Your task to perform on an android device: toggle pop-ups in chrome Image 0: 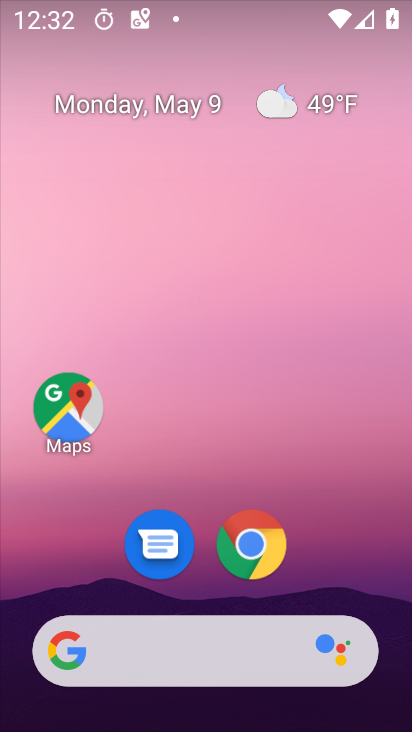
Step 0: drag from (325, 571) to (266, 13)
Your task to perform on an android device: toggle pop-ups in chrome Image 1: 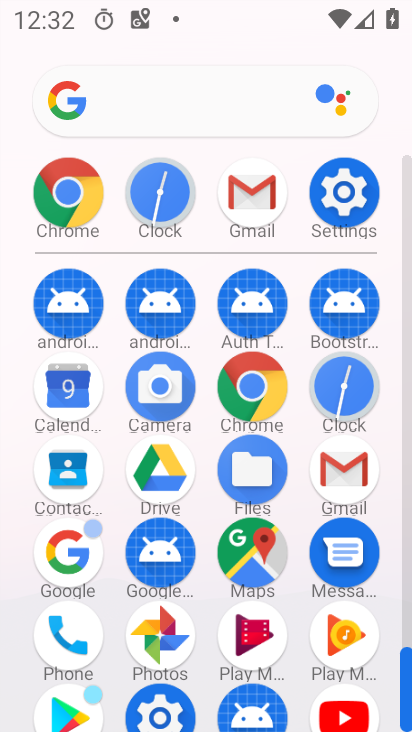
Step 1: click (254, 408)
Your task to perform on an android device: toggle pop-ups in chrome Image 2: 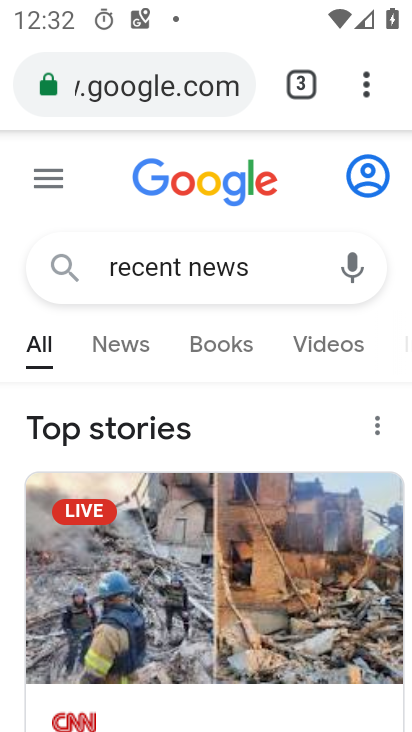
Step 2: drag from (354, 77) to (124, 604)
Your task to perform on an android device: toggle pop-ups in chrome Image 3: 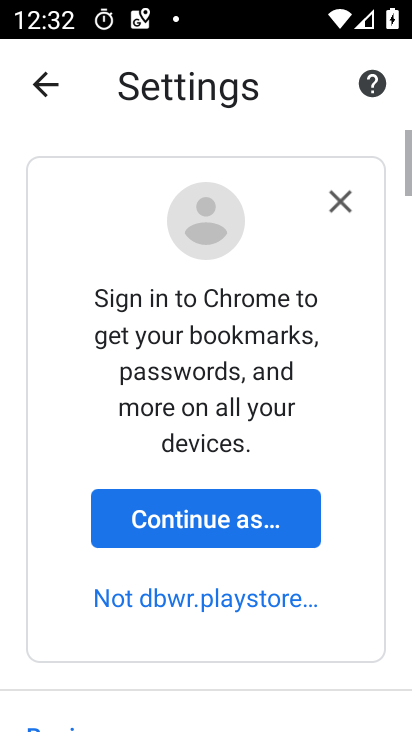
Step 3: drag from (200, 629) to (257, 287)
Your task to perform on an android device: toggle pop-ups in chrome Image 4: 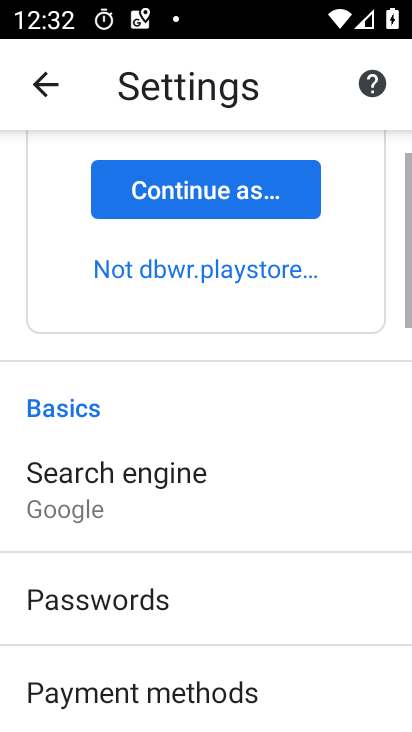
Step 4: drag from (274, 638) to (326, 73)
Your task to perform on an android device: toggle pop-ups in chrome Image 5: 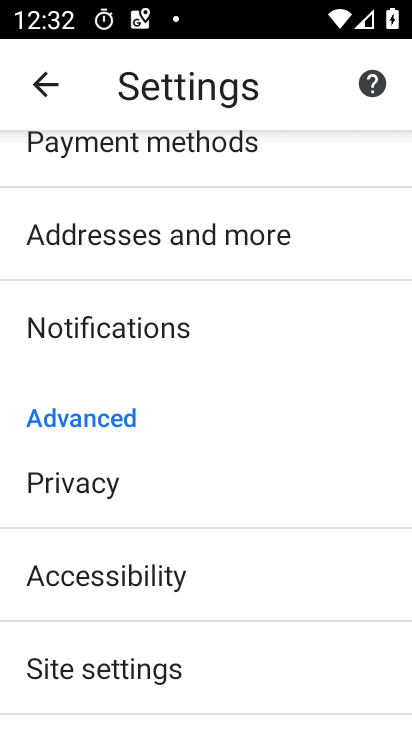
Step 5: click (217, 647)
Your task to perform on an android device: toggle pop-ups in chrome Image 6: 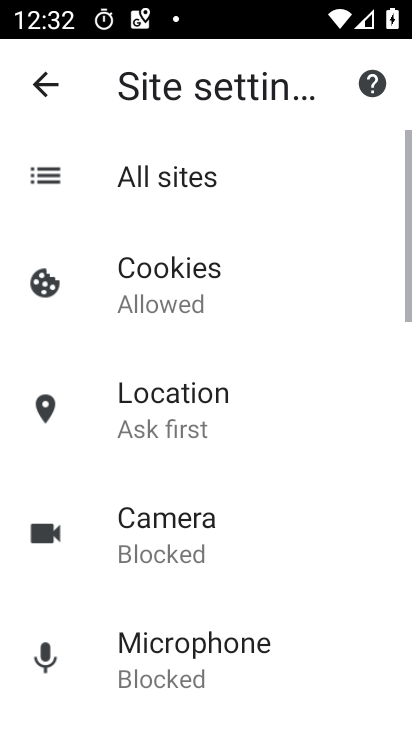
Step 6: drag from (223, 680) to (236, 118)
Your task to perform on an android device: toggle pop-ups in chrome Image 7: 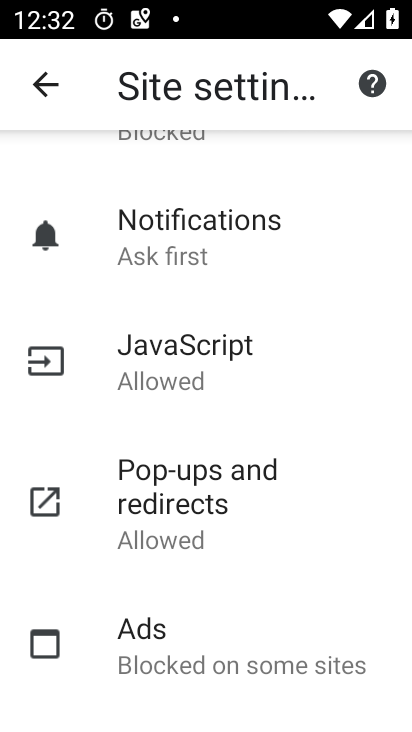
Step 7: click (242, 461)
Your task to perform on an android device: toggle pop-ups in chrome Image 8: 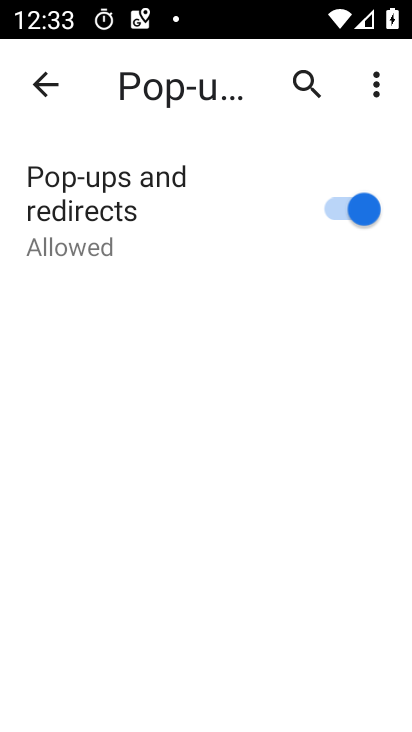
Step 8: click (335, 209)
Your task to perform on an android device: toggle pop-ups in chrome Image 9: 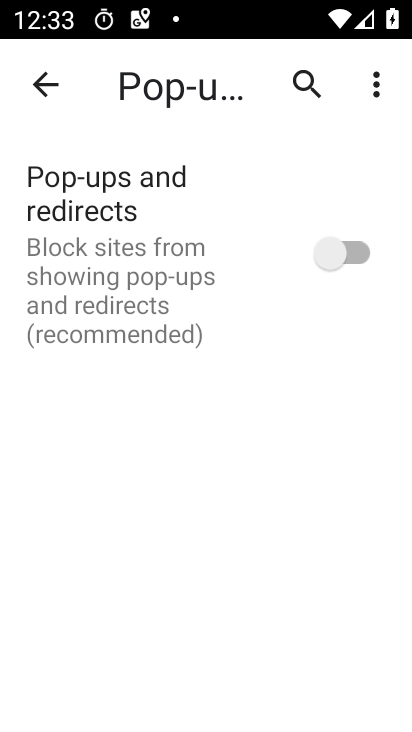
Step 9: task complete